Your task to perform on an android device: delete location history Image 0: 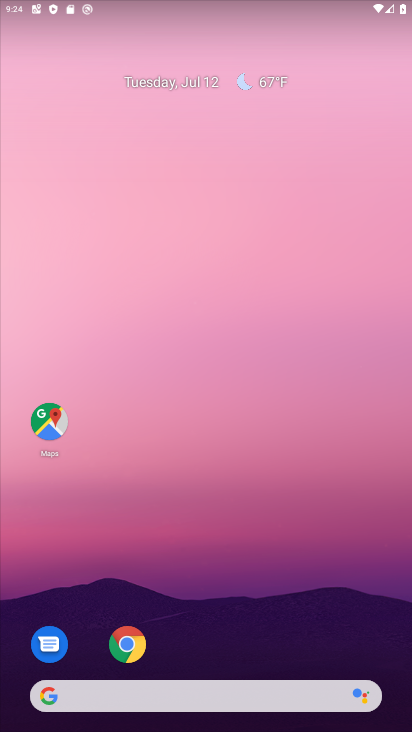
Step 0: drag from (209, 610) to (273, 134)
Your task to perform on an android device: delete location history Image 1: 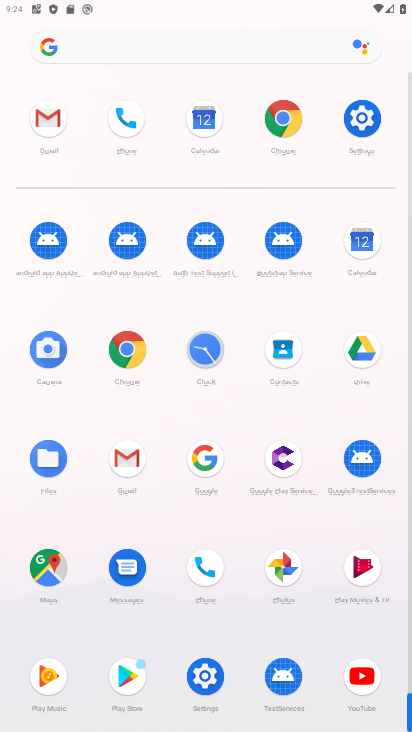
Step 1: click (369, 118)
Your task to perform on an android device: delete location history Image 2: 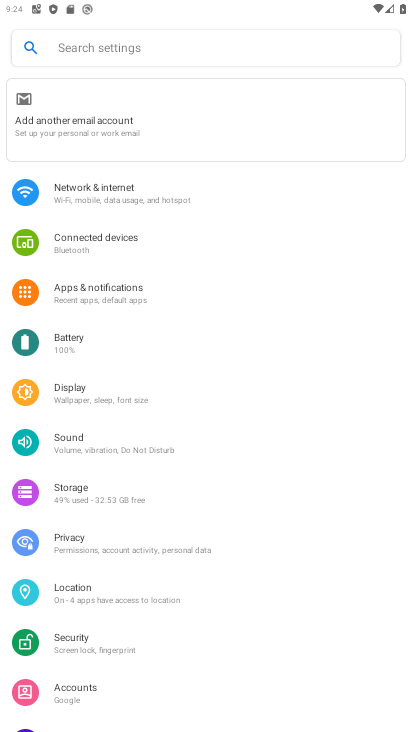
Step 2: click (97, 599)
Your task to perform on an android device: delete location history Image 3: 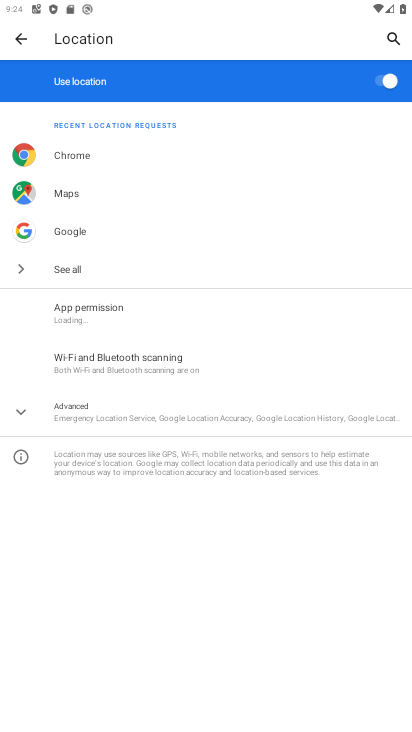
Step 3: click (108, 400)
Your task to perform on an android device: delete location history Image 4: 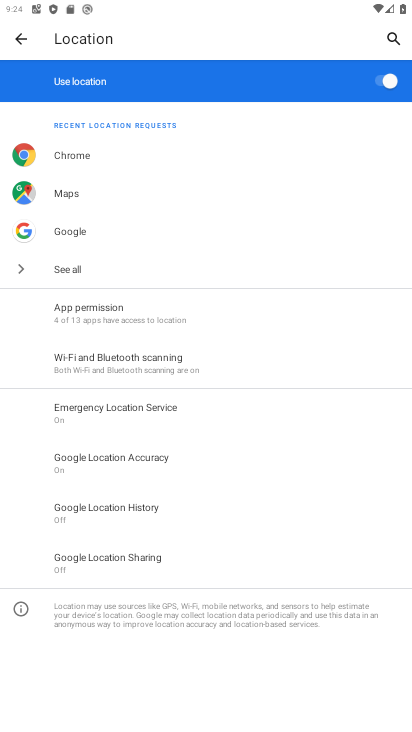
Step 4: click (155, 514)
Your task to perform on an android device: delete location history Image 5: 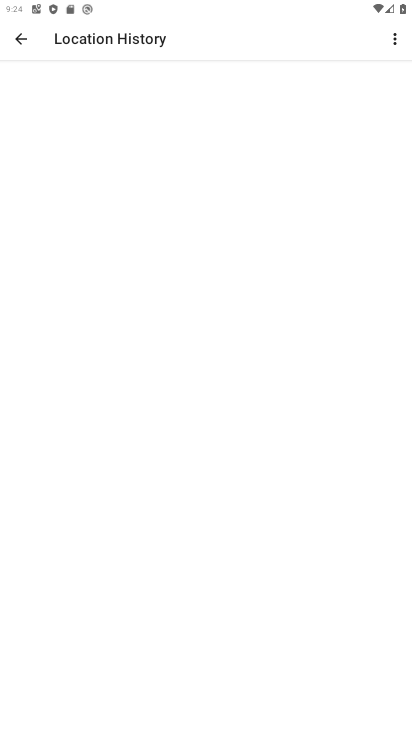
Step 5: drag from (215, 495) to (232, 157)
Your task to perform on an android device: delete location history Image 6: 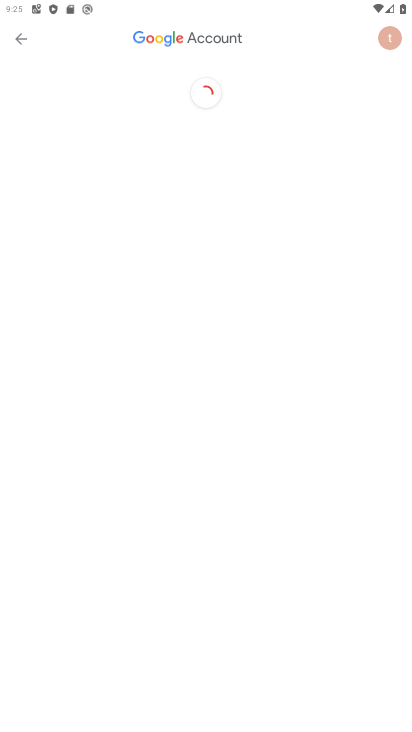
Step 6: drag from (151, 503) to (207, 186)
Your task to perform on an android device: delete location history Image 7: 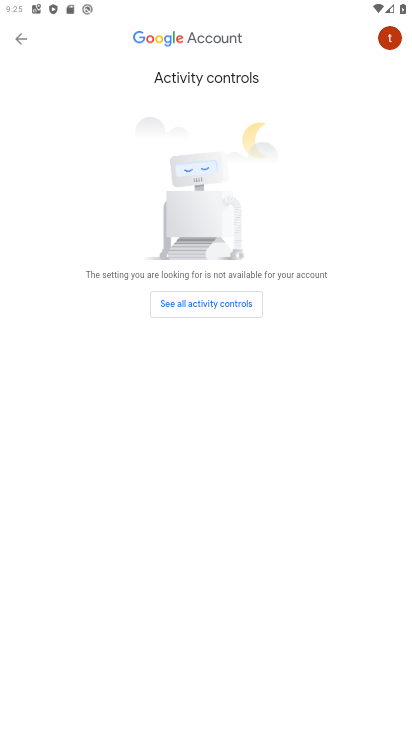
Step 7: drag from (251, 436) to (309, 230)
Your task to perform on an android device: delete location history Image 8: 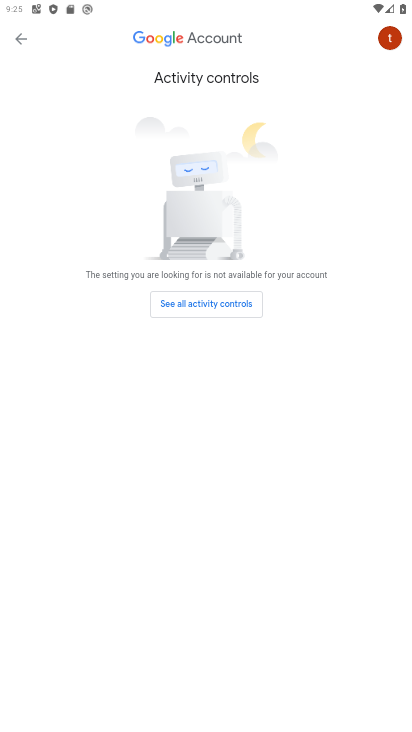
Step 8: drag from (234, 325) to (291, 40)
Your task to perform on an android device: delete location history Image 9: 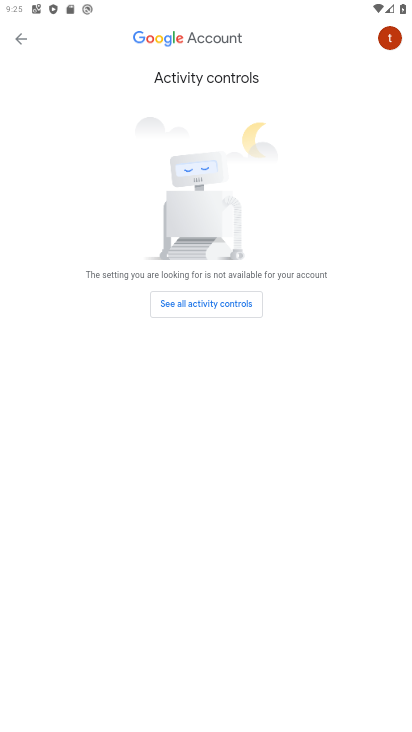
Step 9: drag from (214, 546) to (206, 263)
Your task to perform on an android device: delete location history Image 10: 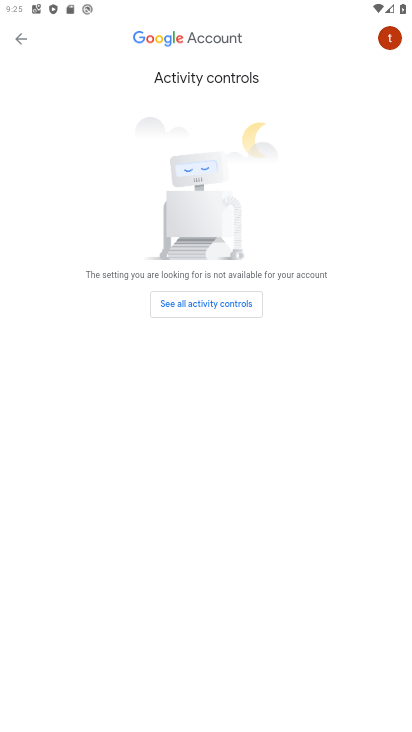
Step 10: drag from (214, 450) to (240, 309)
Your task to perform on an android device: delete location history Image 11: 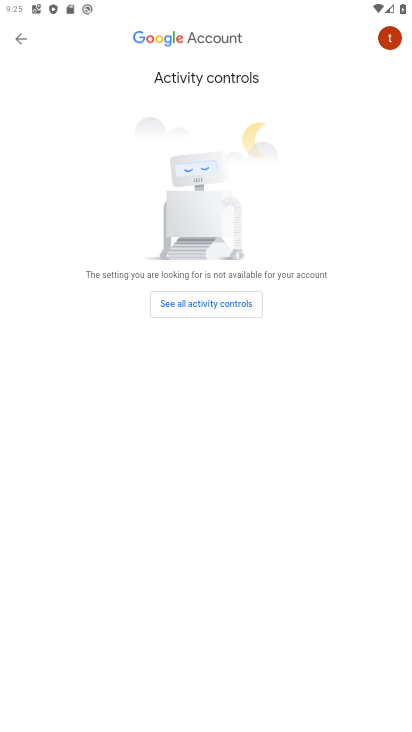
Step 11: drag from (201, 548) to (225, 412)
Your task to perform on an android device: delete location history Image 12: 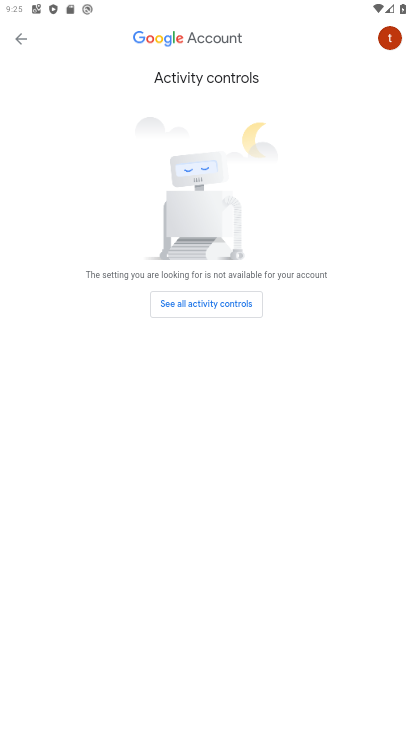
Step 12: drag from (289, 482) to (312, 354)
Your task to perform on an android device: delete location history Image 13: 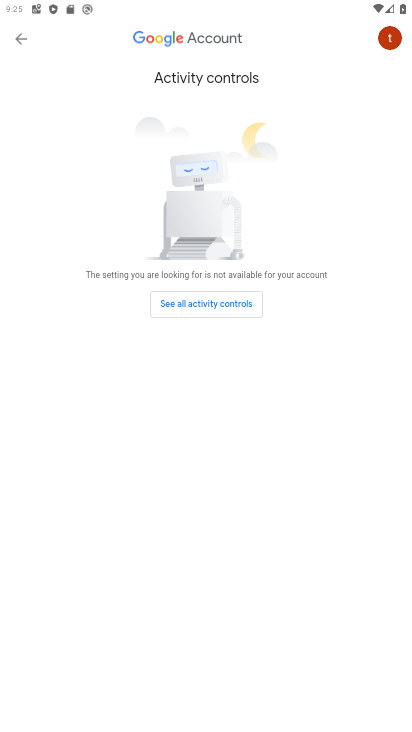
Step 13: click (225, 305)
Your task to perform on an android device: delete location history Image 14: 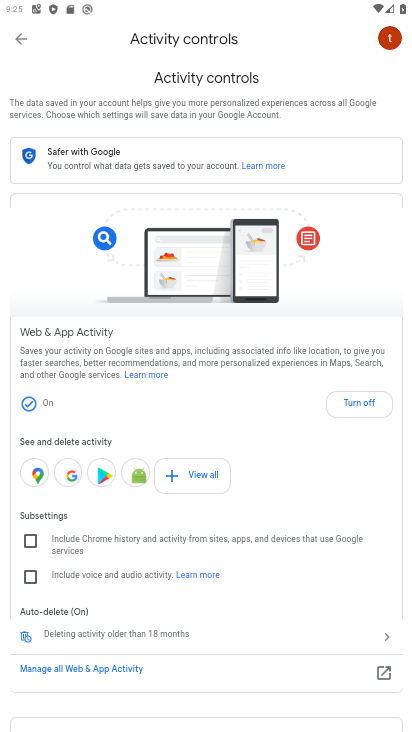
Step 14: drag from (233, 519) to (261, 150)
Your task to perform on an android device: delete location history Image 15: 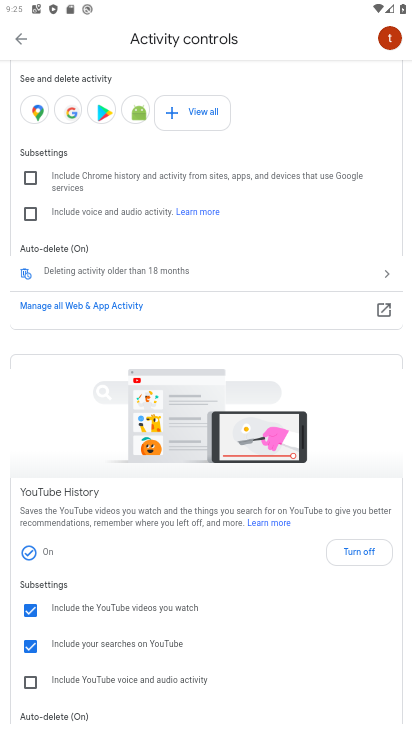
Step 15: drag from (176, 562) to (266, 177)
Your task to perform on an android device: delete location history Image 16: 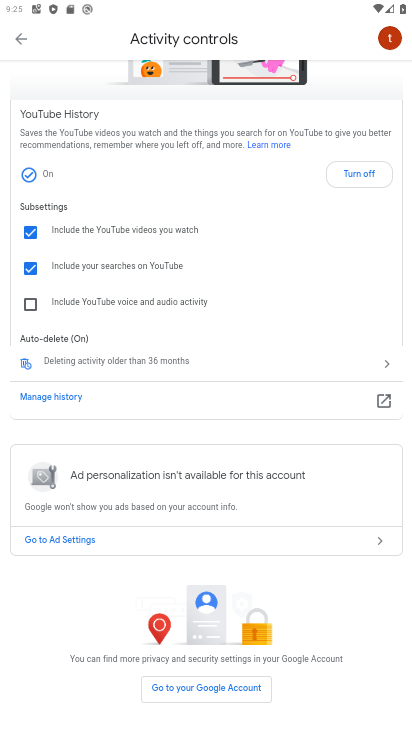
Step 16: click (29, 362)
Your task to perform on an android device: delete location history Image 17: 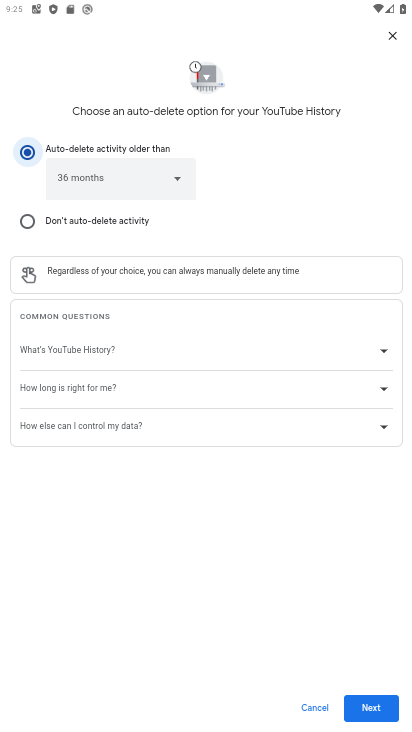
Step 17: click (359, 701)
Your task to perform on an android device: delete location history Image 18: 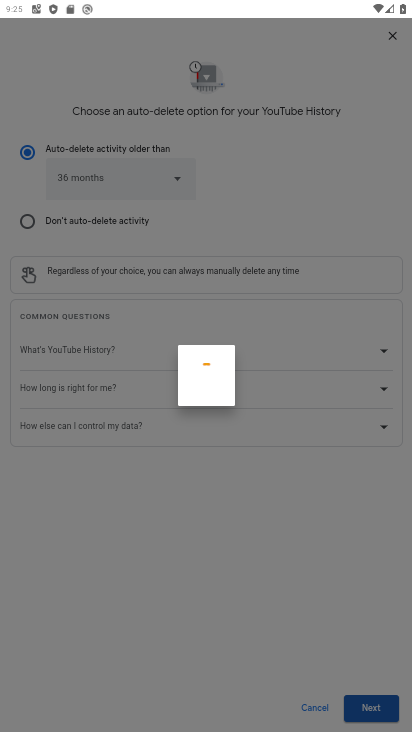
Step 18: click (388, 712)
Your task to perform on an android device: delete location history Image 19: 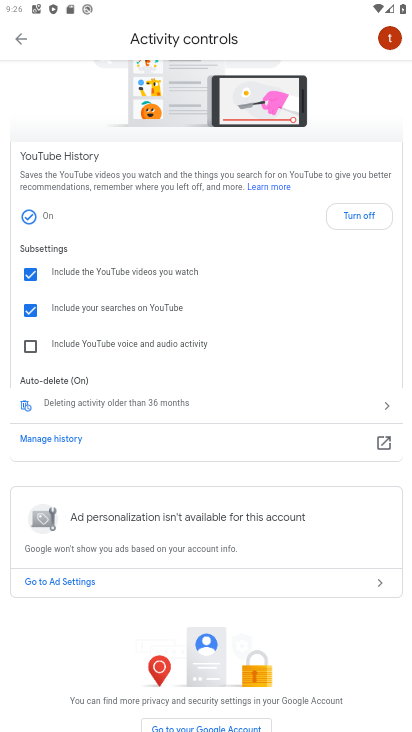
Step 19: task complete